Your task to perform on an android device: Show me popular games on the Play Store Image 0: 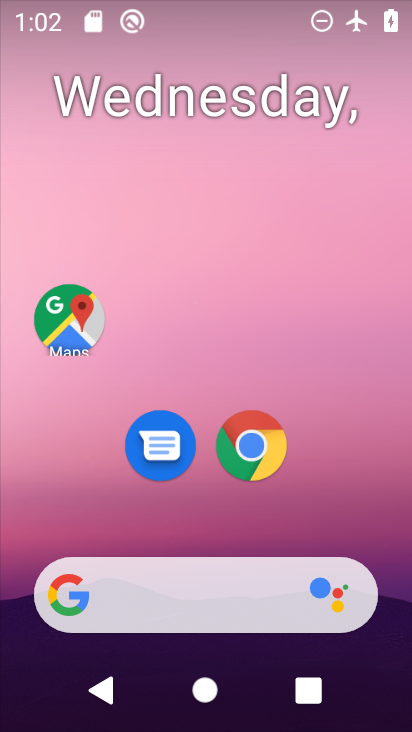
Step 0: drag from (397, 626) to (285, 32)
Your task to perform on an android device: Show me popular games on the Play Store Image 1: 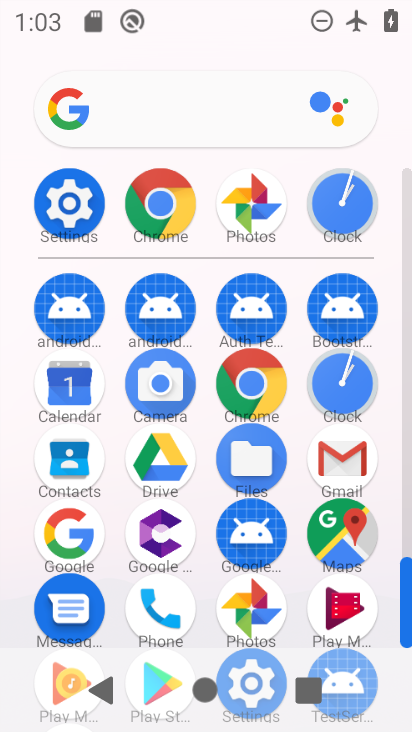
Step 1: drag from (161, 633) to (115, 119)
Your task to perform on an android device: Show me popular games on the Play Store Image 2: 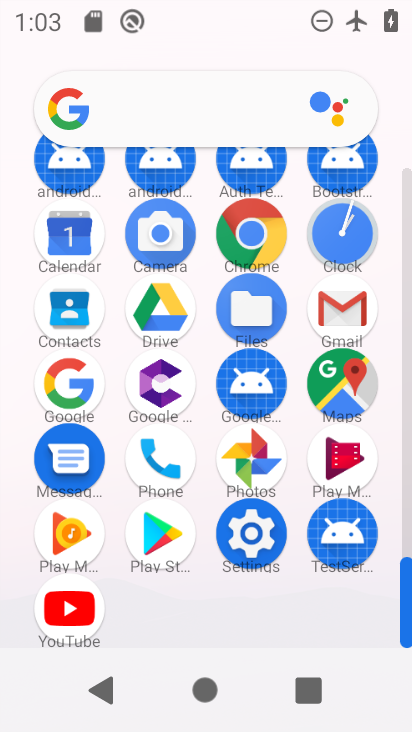
Step 2: click (166, 560)
Your task to perform on an android device: Show me popular games on the Play Store Image 3: 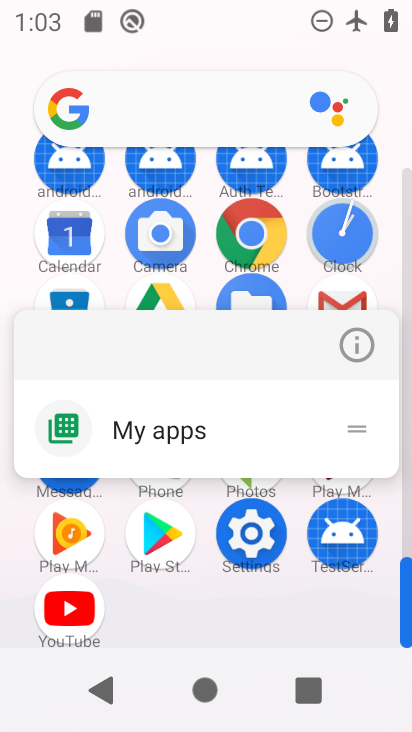
Step 3: click (154, 530)
Your task to perform on an android device: Show me popular games on the Play Store Image 4: 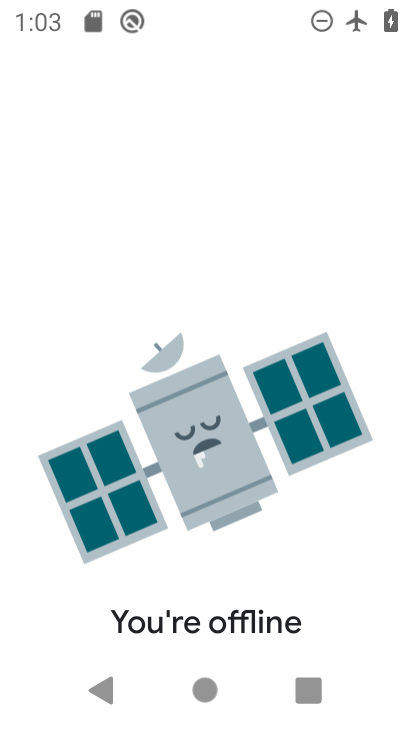
Step 4: task complete